Your task to perform on an android device: Go to eBay Image 0: 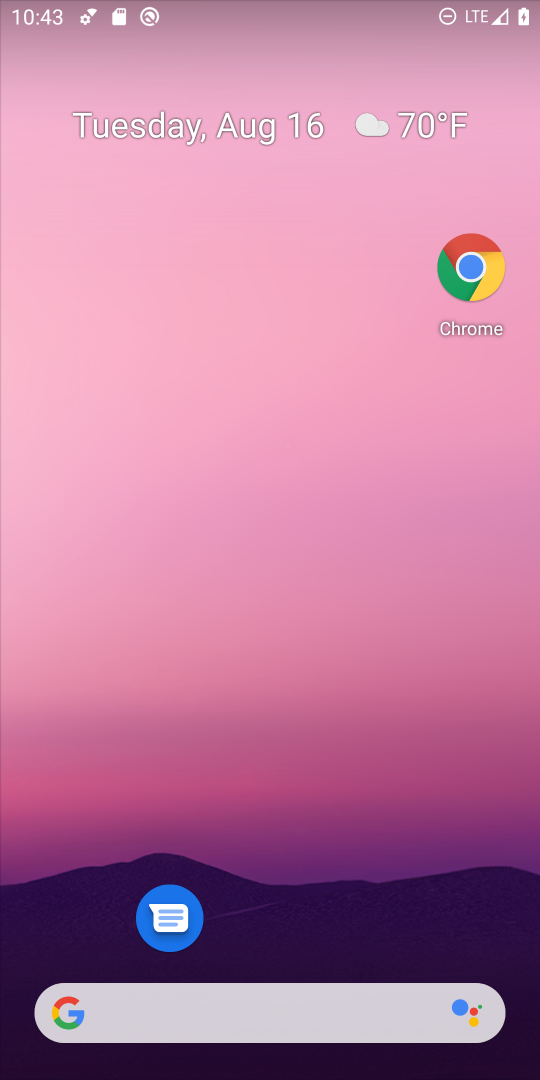
Step 0: drag from (284, 982) to (193, 59)
Your task to perform on an android device: Go to eBay Image 1: 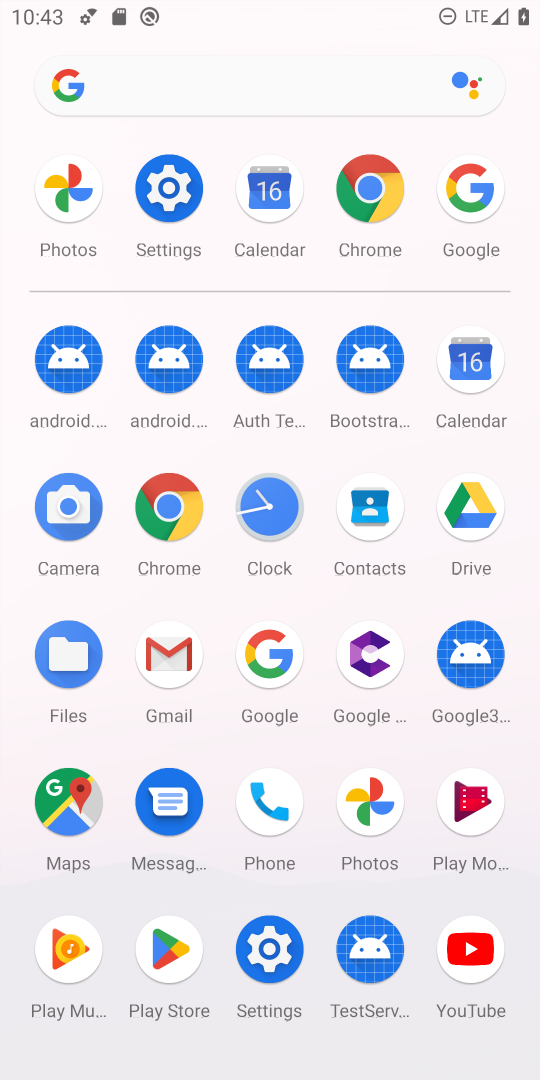
Step 1: click (378, 230)
Your task to perform on an android device: Go to eBay Image 2: 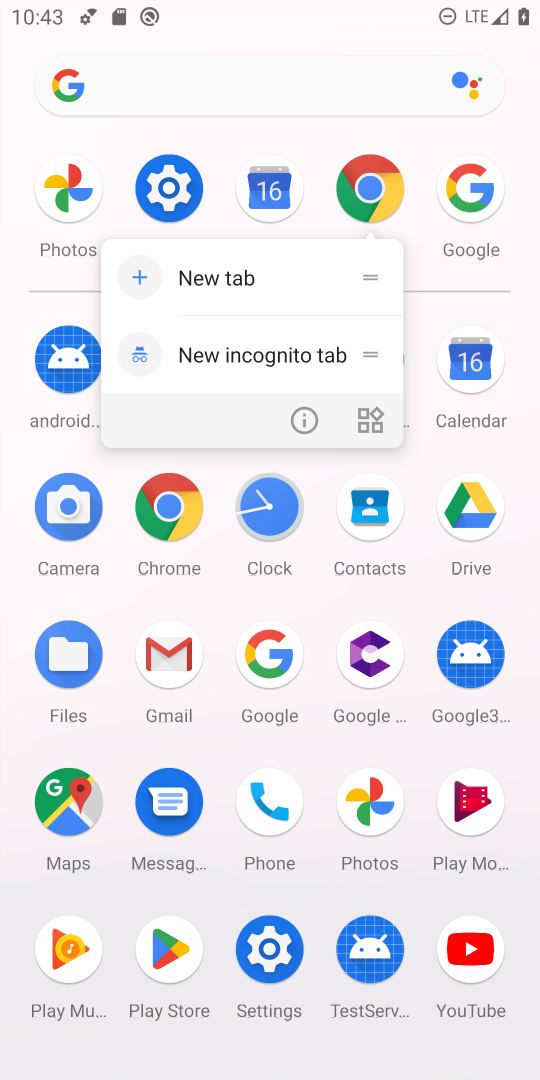
Step 2: click (386, 192)
Your task to perform on an android device: Go to eBay Image 3: 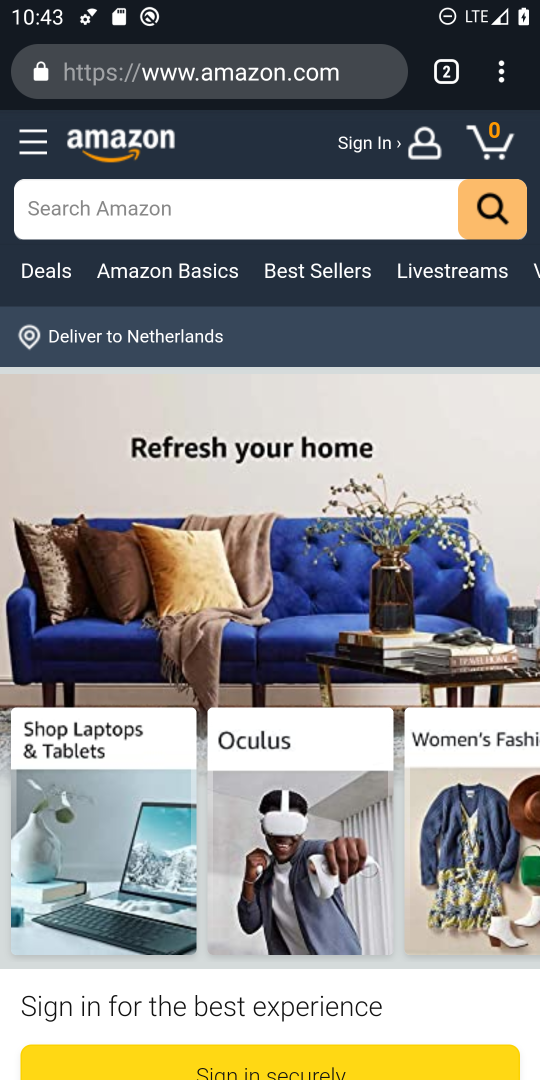
Step 3: click (346, 77)
Your task to perform on an android device: Go to eBay Image 4: 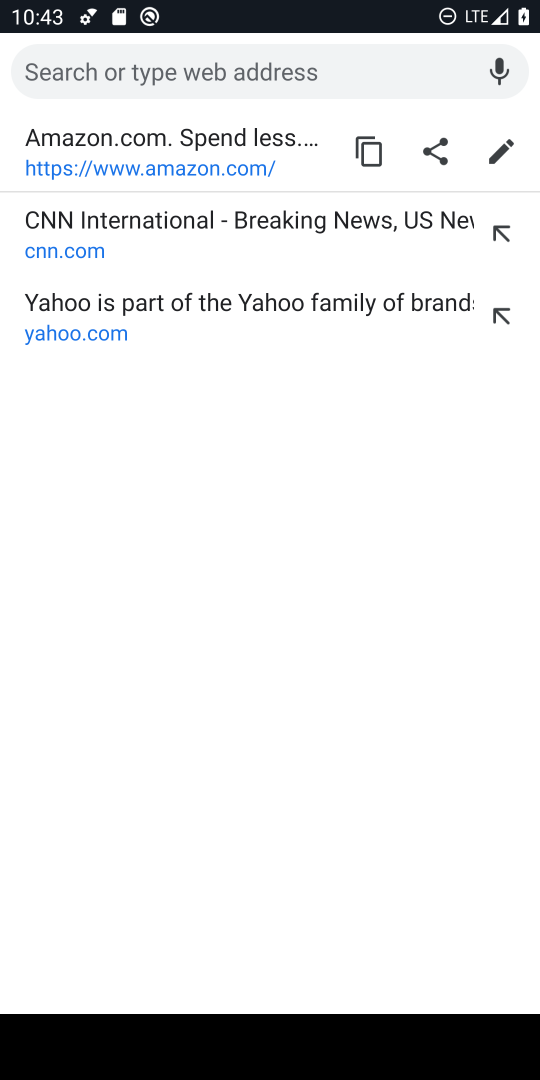
Step 4: type "ebay"
Your task to perform on an android device: Go to eBay Image 5: 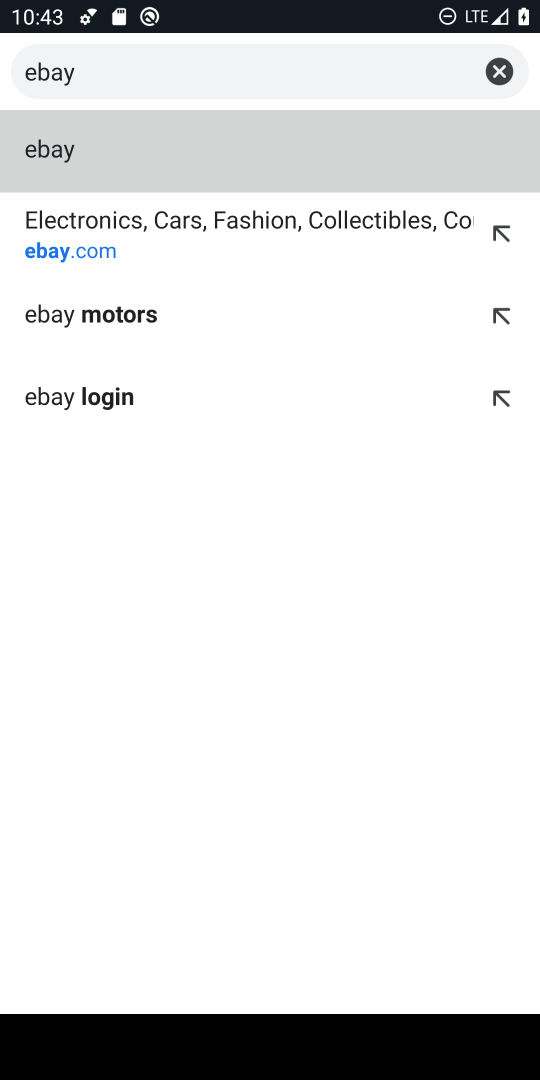
Step 5: click (194, 240)
Your task to perform on an android device: Go to eBay Image 6: 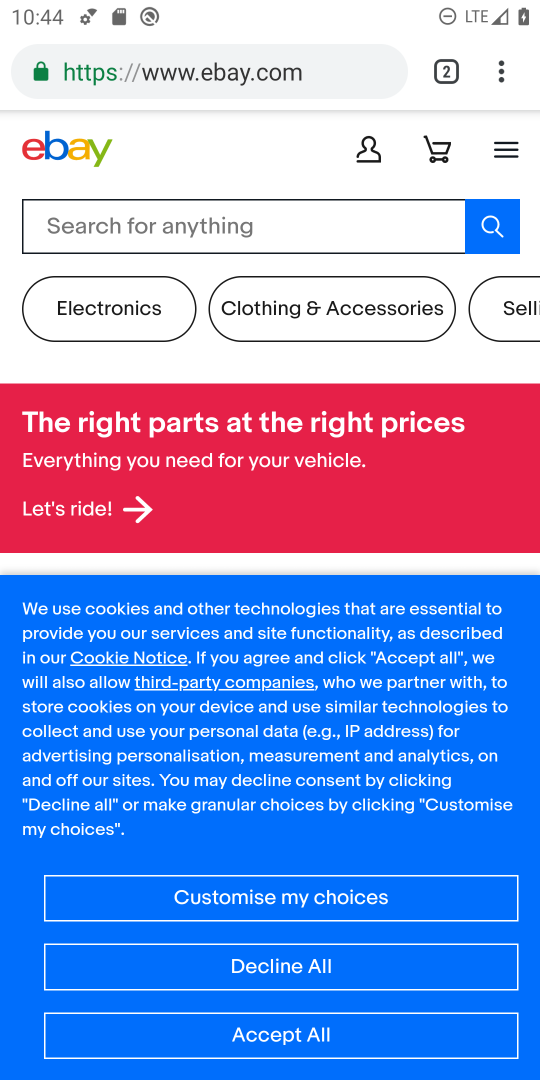
Step 6: task complete